Your task to perform on an android device: Open Maps and search for coffee Image 0: 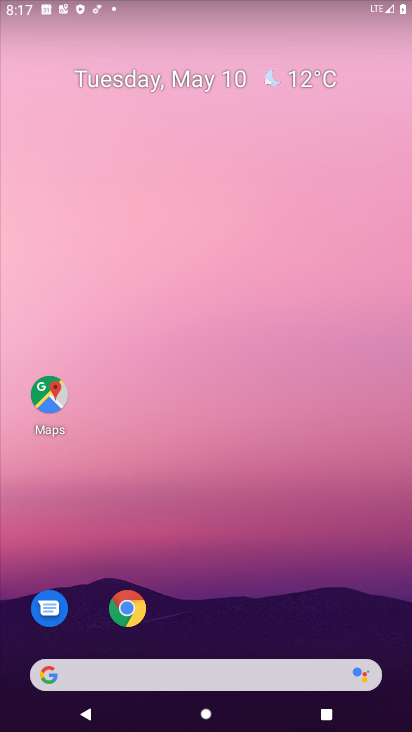
Step 0: drag from (197, 669) to (254, 174)
Your task to perform on an android device: Open Maps and search for coffee Image 1: 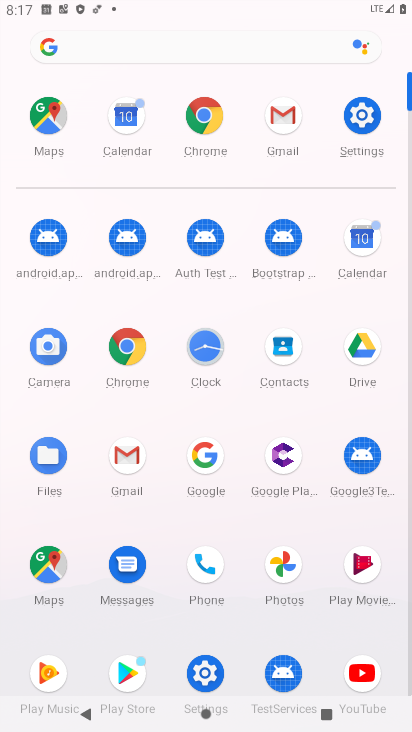
Step 1: click (51, 570)
Your task to perform on an android device: Open Maps and search for coffee Image 2: 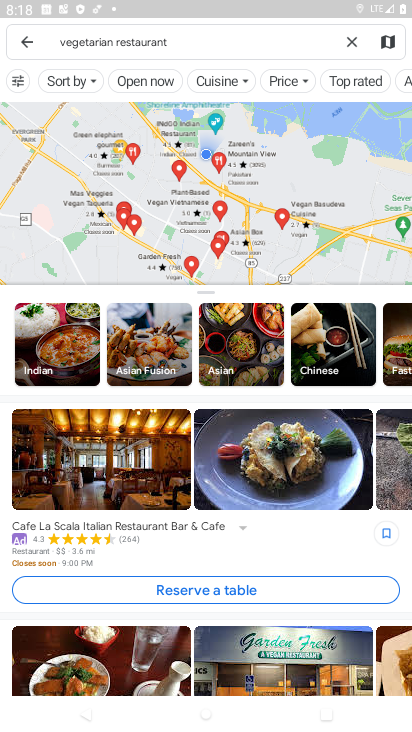
Step 2: click (350, 37)
Your task to perform on an android device: Open Maps and search for coffee Image 3: 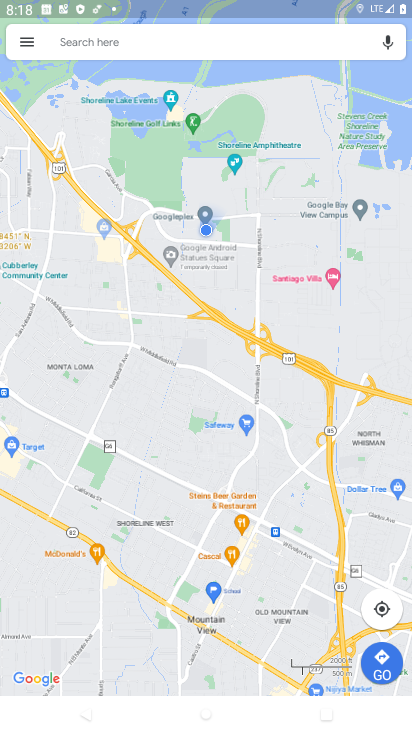
Step 3: click (169, 44)
Your task to perform on an android device: Open Maps and search for coffee Image 4: 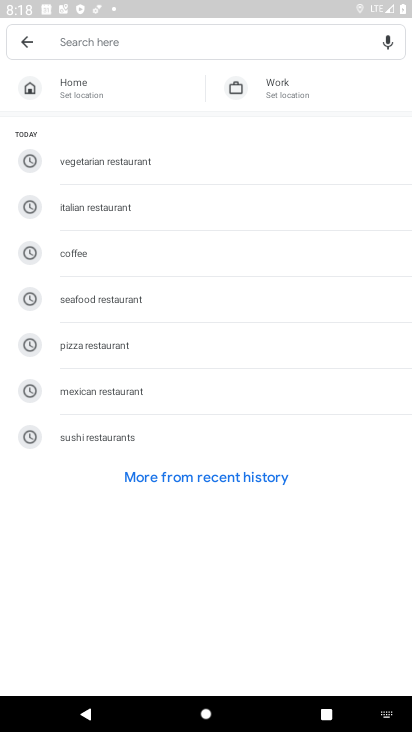
Step 4: click (78, 253)
Your task to perform on an android device: Open Maps and search for coffee Image 5: 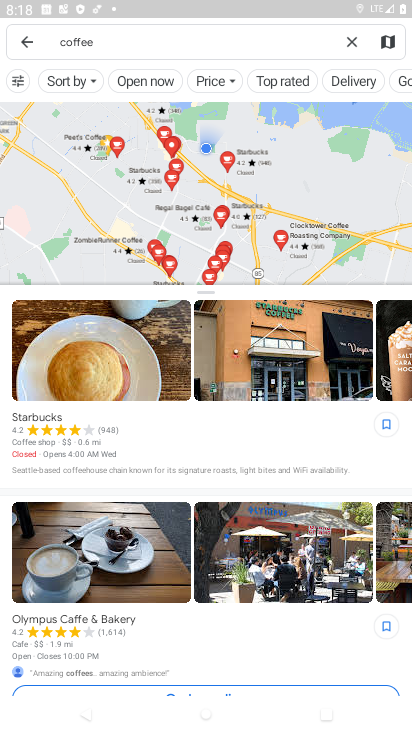
Step 5: task complete